Your task to perform on an android device: Open eBay Image 0: 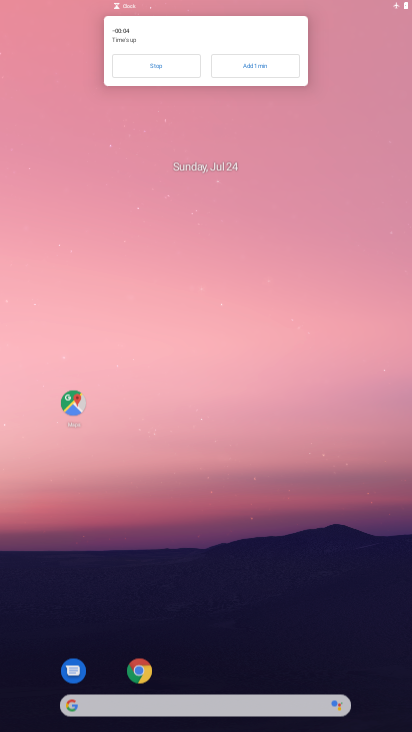
Step 0: click (267, 221)
Your task to perform on an android device: Open eBay Image 1: 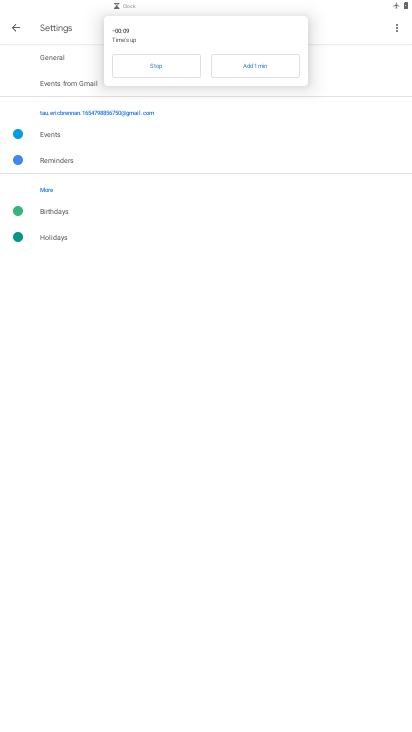
Step 1: click (157, 73)
Your task to perform on an android device: Open eBay Image 2: 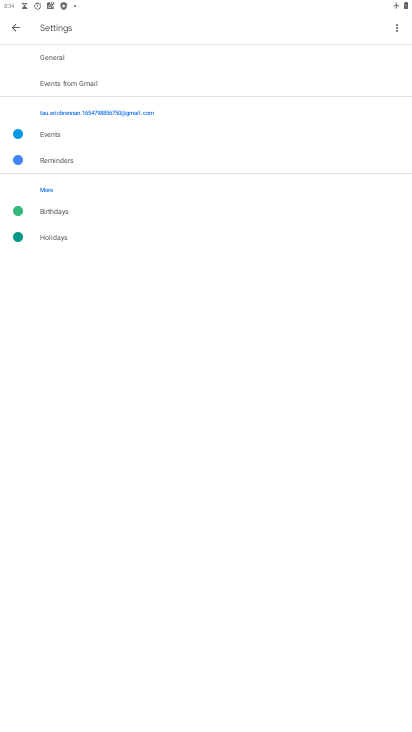
Step 2: drag from (200, 512) to (288, 108)
Your task to perform on an android device: Open eBay Image 3: 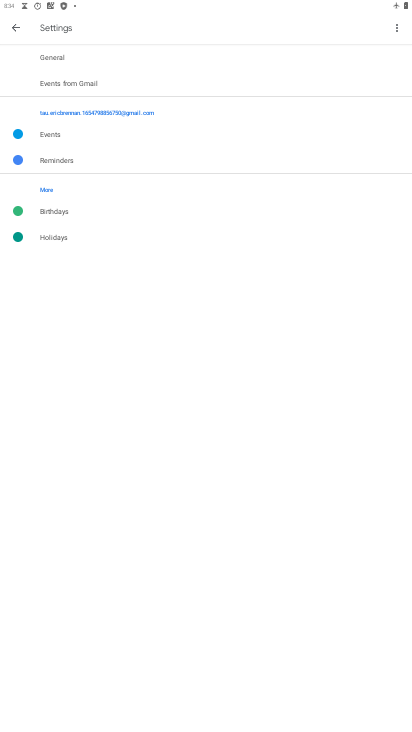
Step 3: press home button
Your task to perform on an android device: Open eBay Image 4: 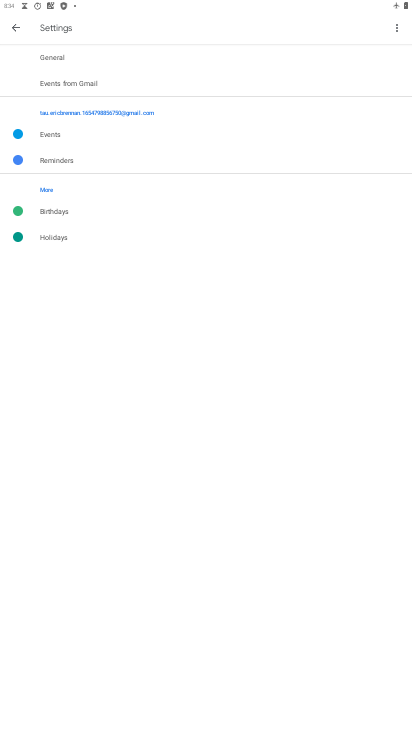
Step 4: press home button
Your task to perform on an android device: Open eBay Image 5: 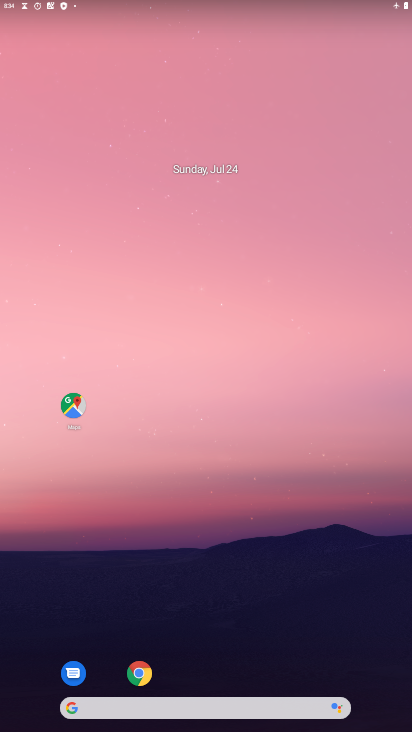
Step 5: drag from (184, 676) to (190, 60)
Your task to perform on an android device: Open eBay Image 6: 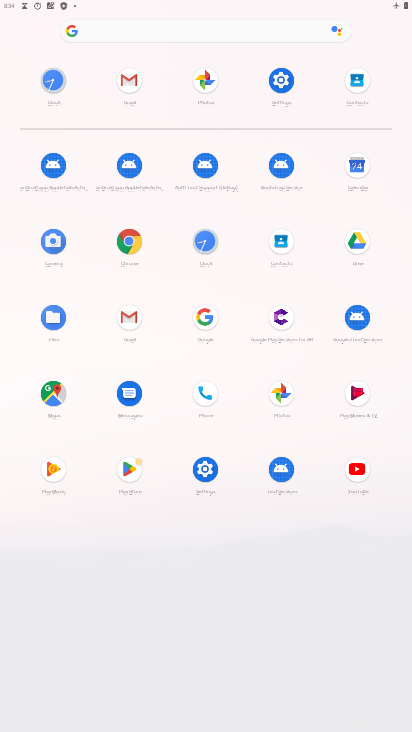
Step 6: click (172, 24)
Your task to perform on an android device: Open eBay Image 7: 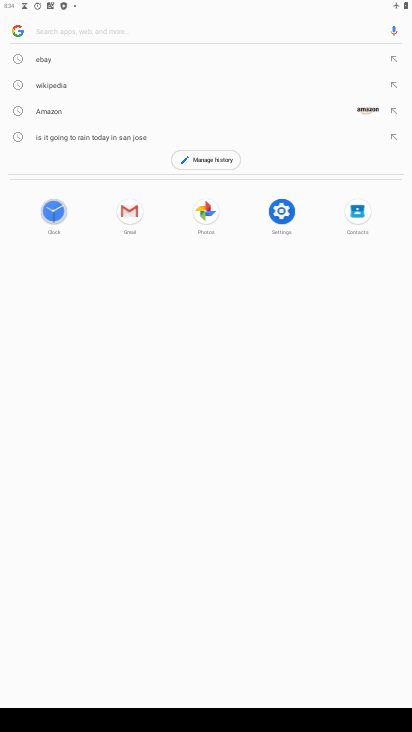
Step 7: click (75, 62)
Your task to perform on an android device: Open eBay Image 8: 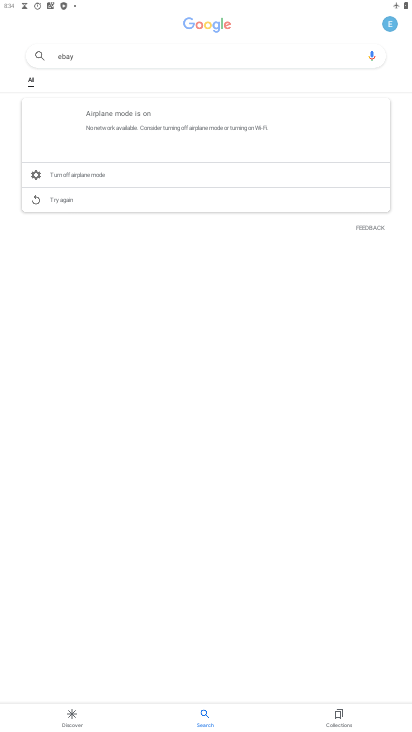
Step 8: task complete